Your task to perform on an android device: turn on priority inbox in the gmail app Image 0: 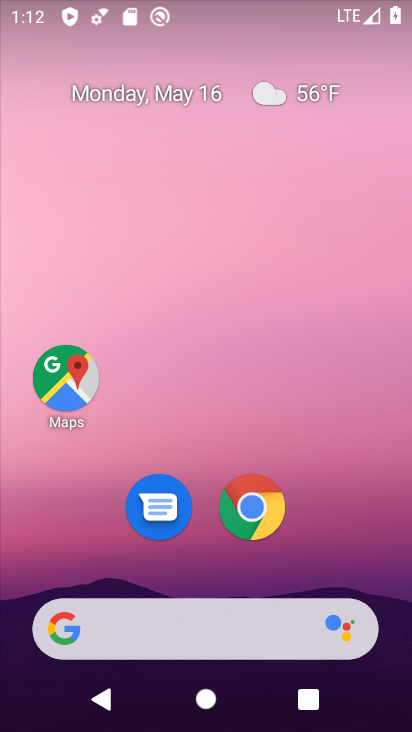
Step 0: drag from (230, 574) to (185, 147)
Your task to perform on an android device: turn on priority inbox in the gmail app Image 1: 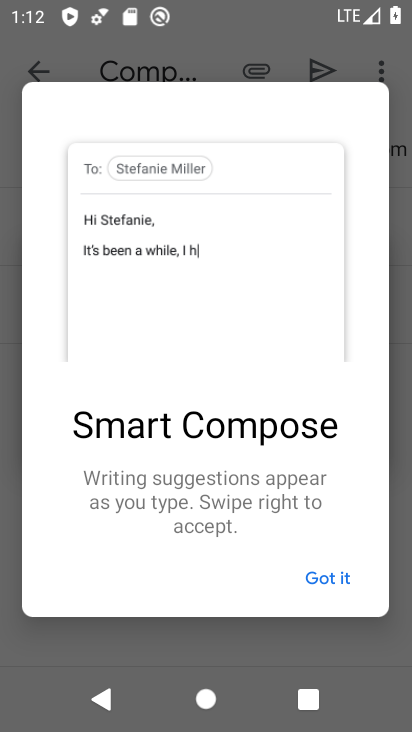
Step 1: click (317, 586)
Your task to perform on an android device: turn on priority inbox in the gmail app Image 2: 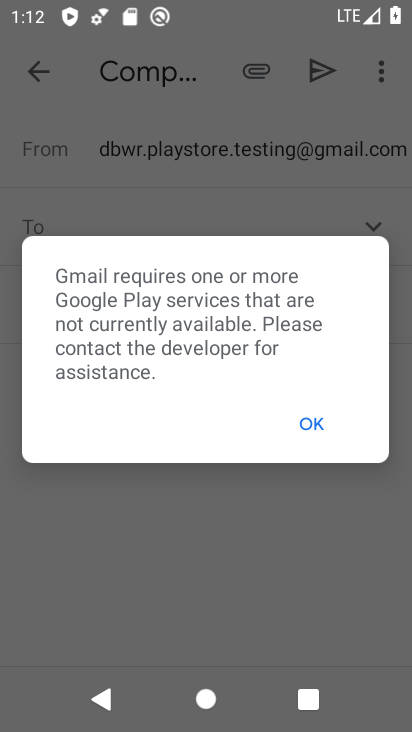
Step 2: click (307, 430)
Your task to perform on an android device: turn on priority inbox in the gmail app Image 3: 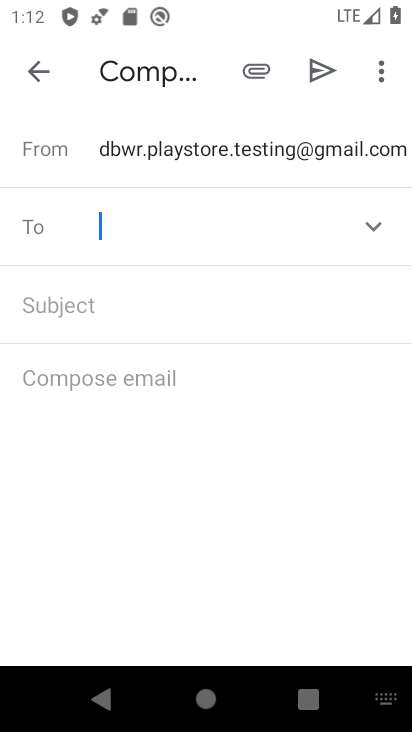
Step 3: press back button
Your task to perform on an android device: turn on priority inbox in the gmail app Image 4: 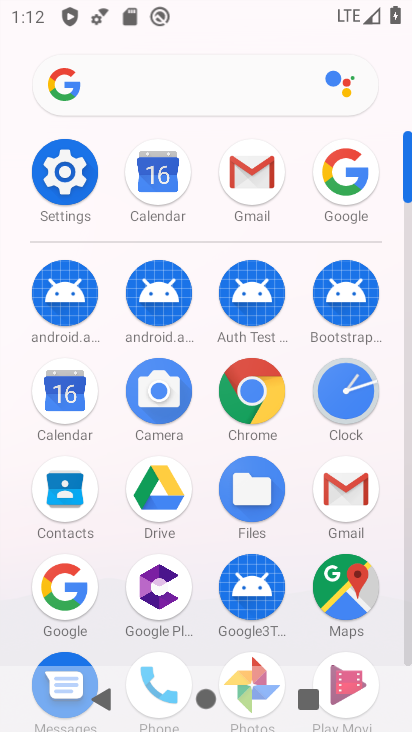
Step 4: click (239, 173)
Your task to perform on an android device: turn on priority inbox in the gmail app Image 5: 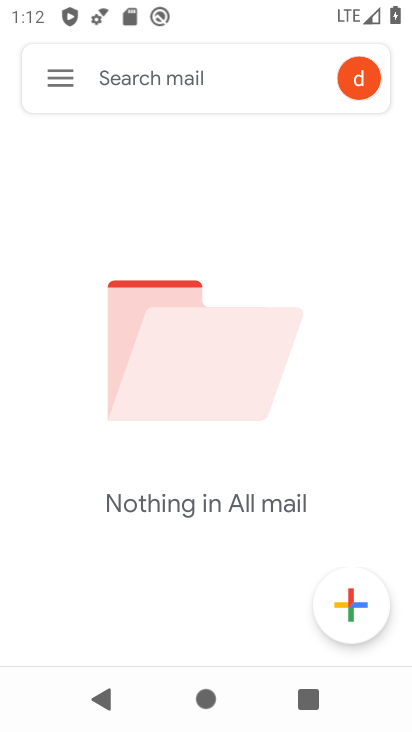
Step 5: click (70, 83)
Your task to perform on an android device: turn on priority inbox in the gmail app Image 6: 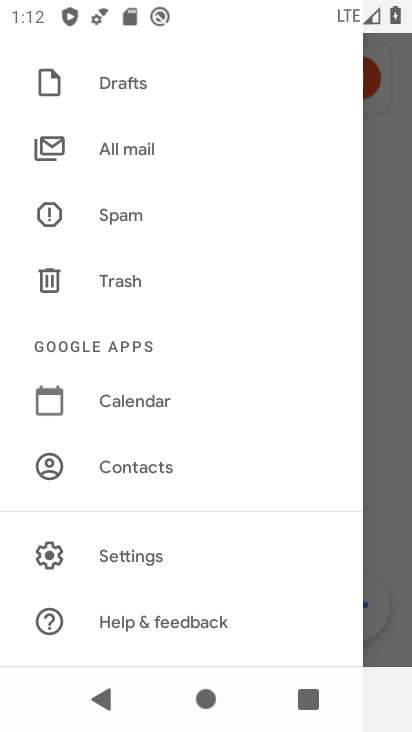
Step 6: click (172, 550)
Your task to perform on an android device: turn on priority inbox in the gmail app Image 7: 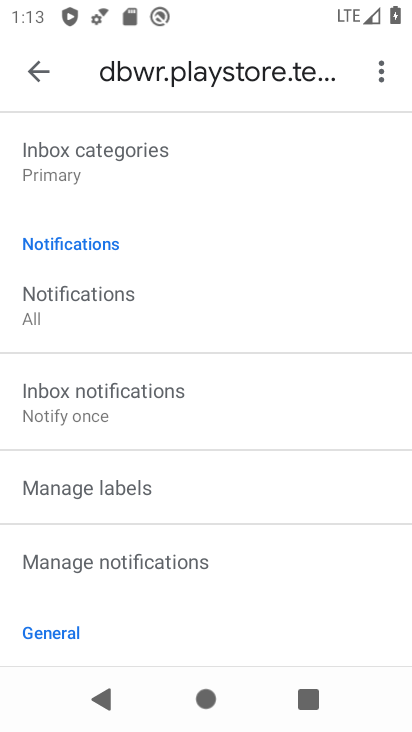
Step 7: drag from (126, 215) to (156, 483)
Your task to perform on an android device: turn on priority inbox in the gmail app Image 8: 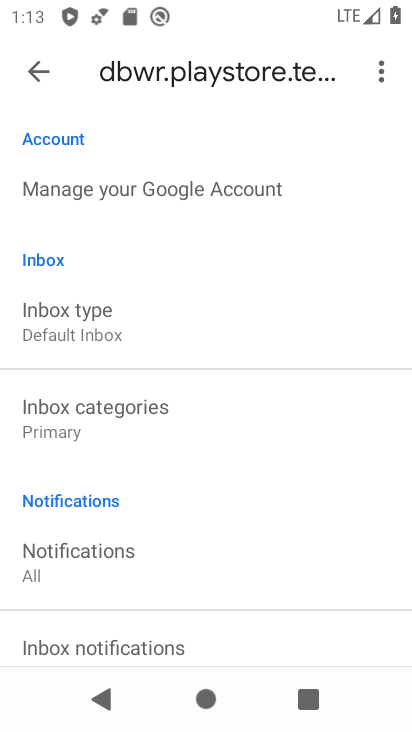
Step 8: click (122, 304)
Your task to perform on an android device: turn on priority inbox in the gmail app Image 9: 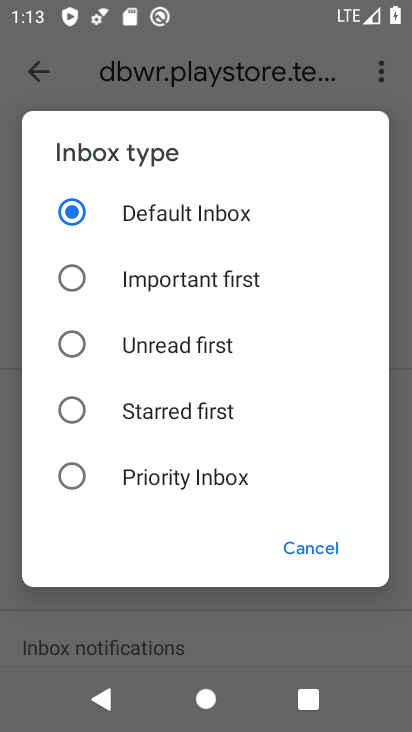
Step 9: click (180, 484)
Your task to perform on an android device: turn on priority inbox in the gmail app Image 10: 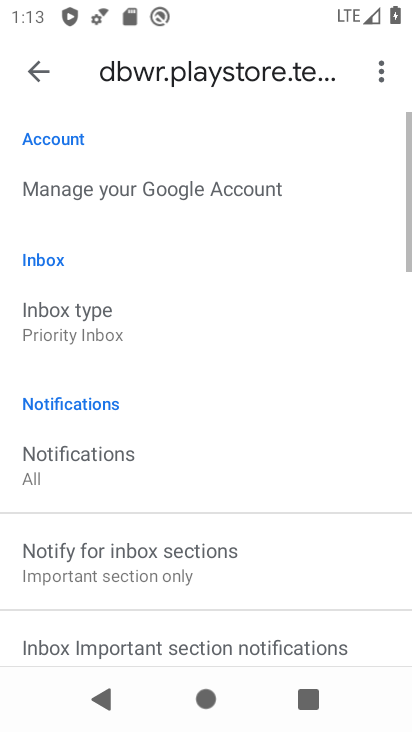
Step 10: task complete